Your task to perform on an android device: How much does a 2 bedroom apartment rent for in Seattle? Image 0: 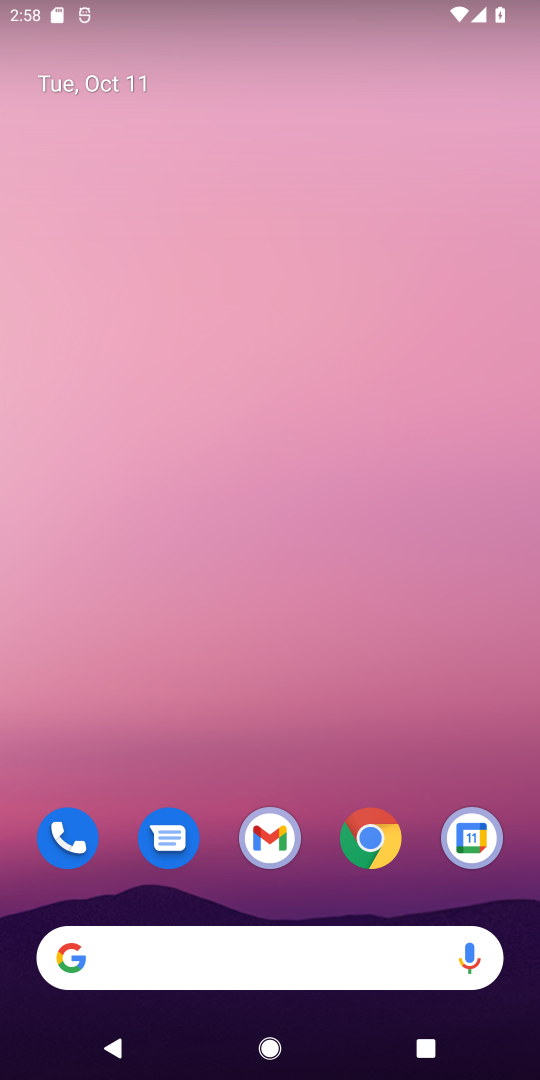
Step 0: click (370, 838)
Your task to perform on an android device: How much does a 2 bedroom apartment rent for in Seattle? Image 1: 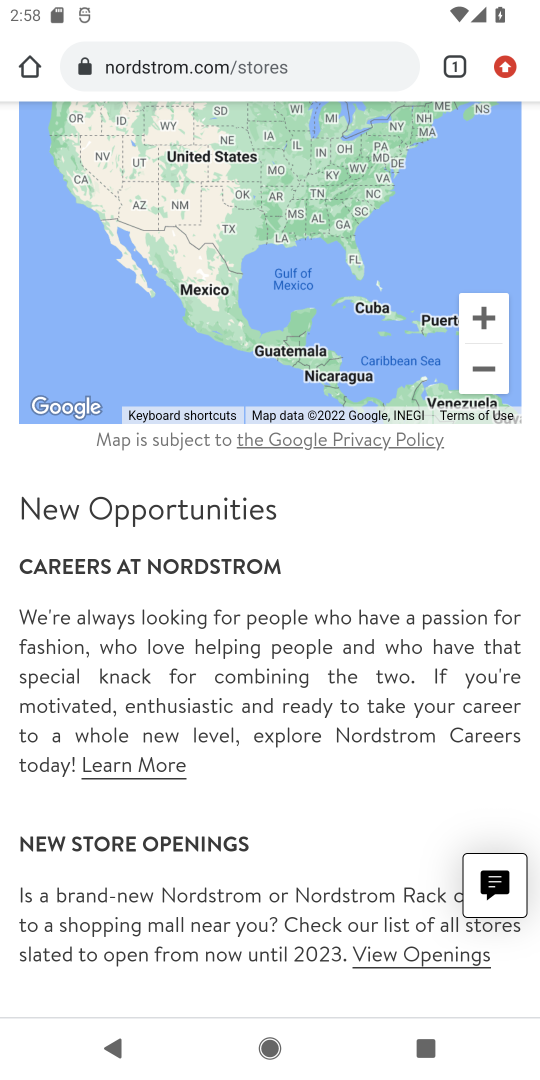
Step 1: click (203, 65)
Your task to perform on an android device: How much does a 2 bedroom apartment rent for in Seattle? Image 2: 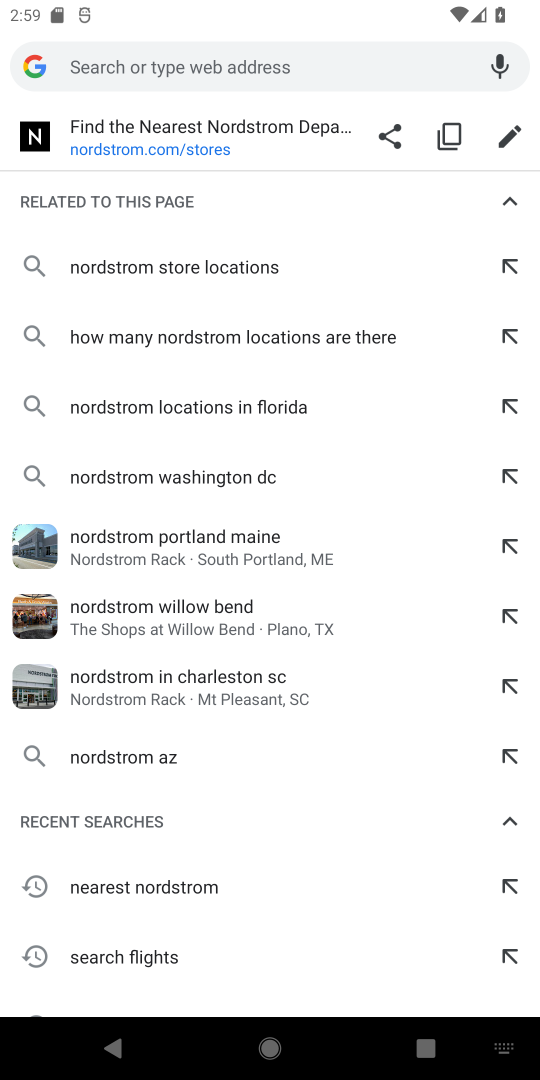
Step 2: type "2 bedroom apartment rent for in seattle"
Your task to perform on an android device: How much does a 2 bedroom apartment rent for in Seattle? Image 3: 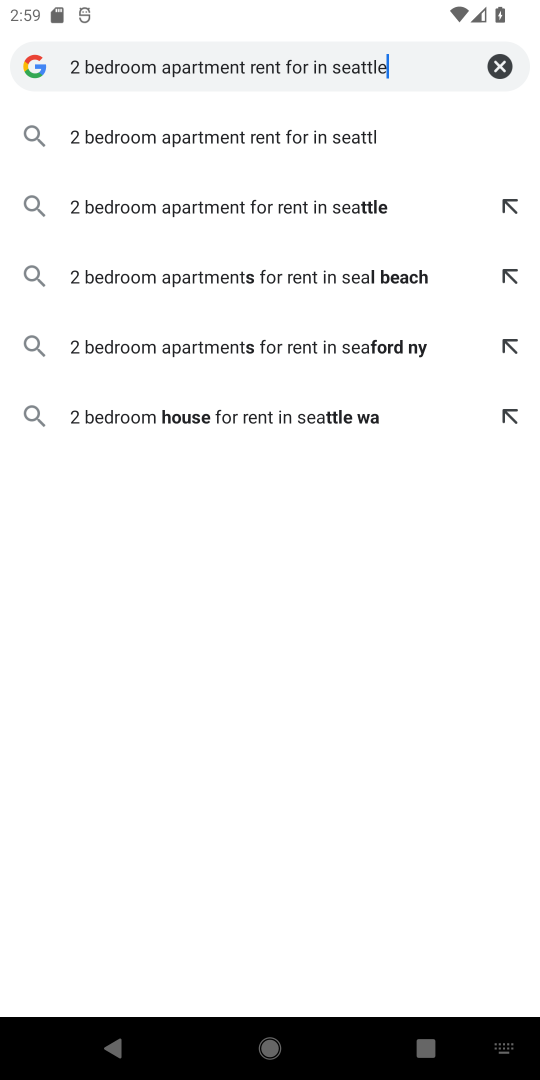
Step 3: type ""
Your task to perform on an android device: How much does a 2 bedroom apartment rent for in Seattle? Image 4: 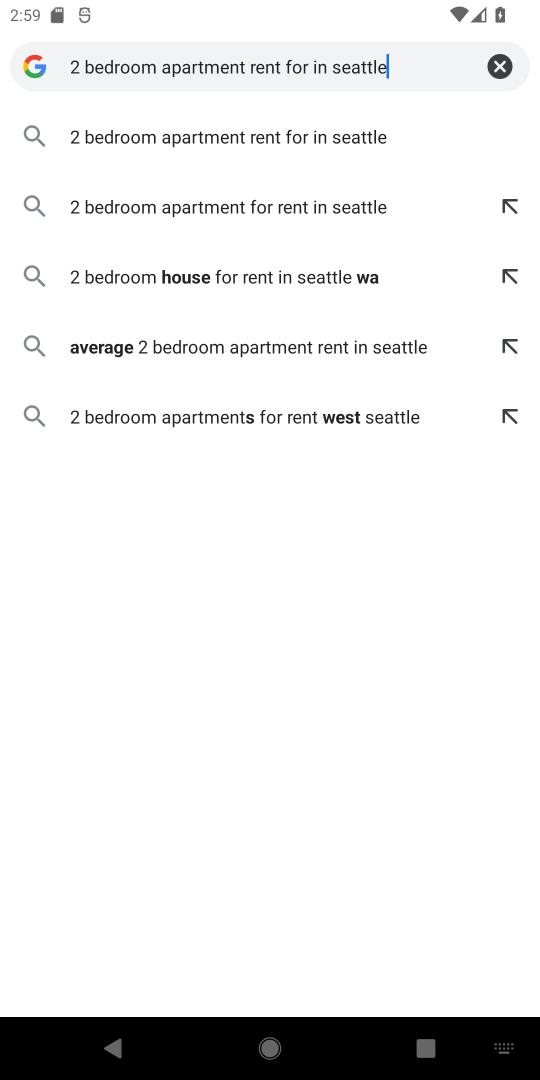
Step 4: click (277, 137)
Your task to perform on an android device: How much does a 2 bedroom apartment rent for in Seattle? Image 5: 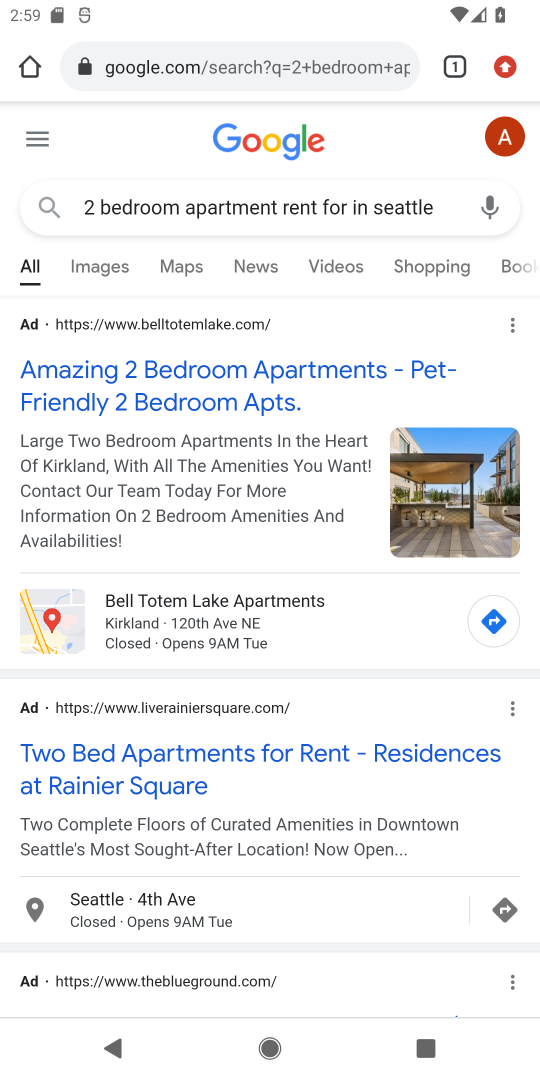
Step 5: drag from (277, 809) to (293, 335)
Your task to perform on an android device: How much does a 2 bedroom apartment rent for in Seattle? Image 6: 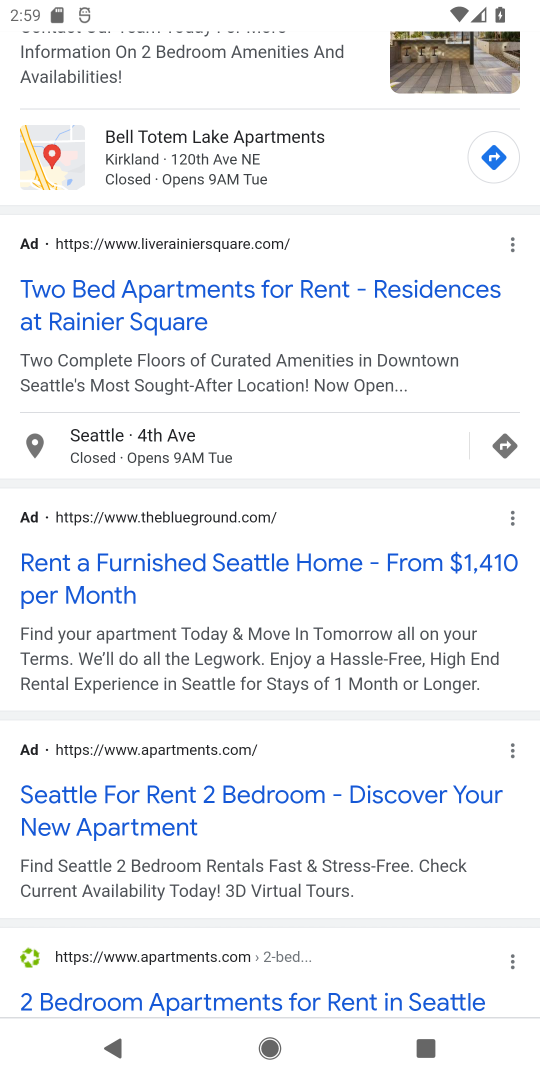
Step 6: drag from (330, 749) to (330, 408)
Your task to perform on an android device: How much does a 2 bedroom apartment rent for in Seattle? Image 7: 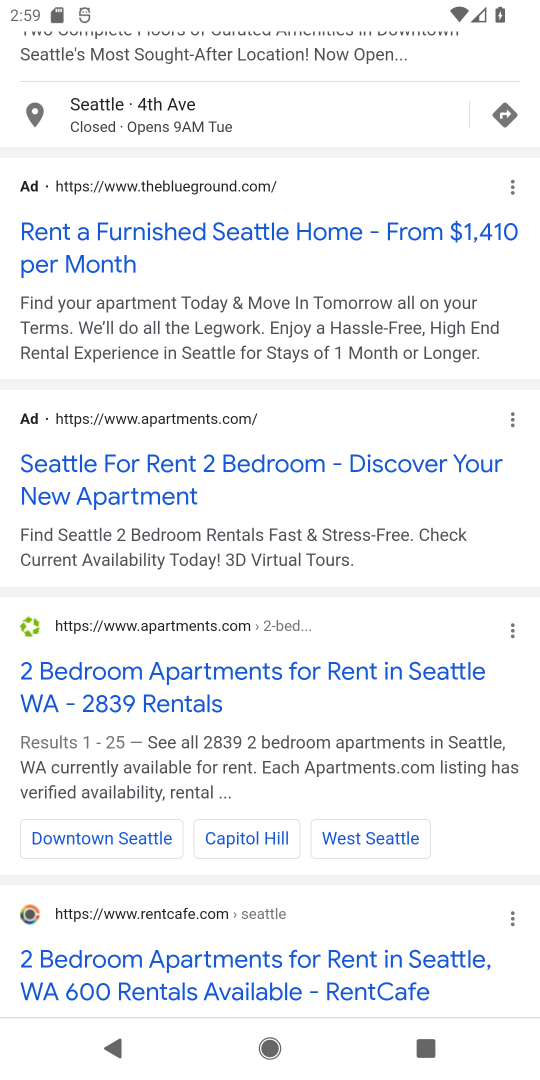
Step 7: click (217, 679)
Your task to perform on an android device: How much does a 2 bedroom apartment rent for in Seattle? Image 8: 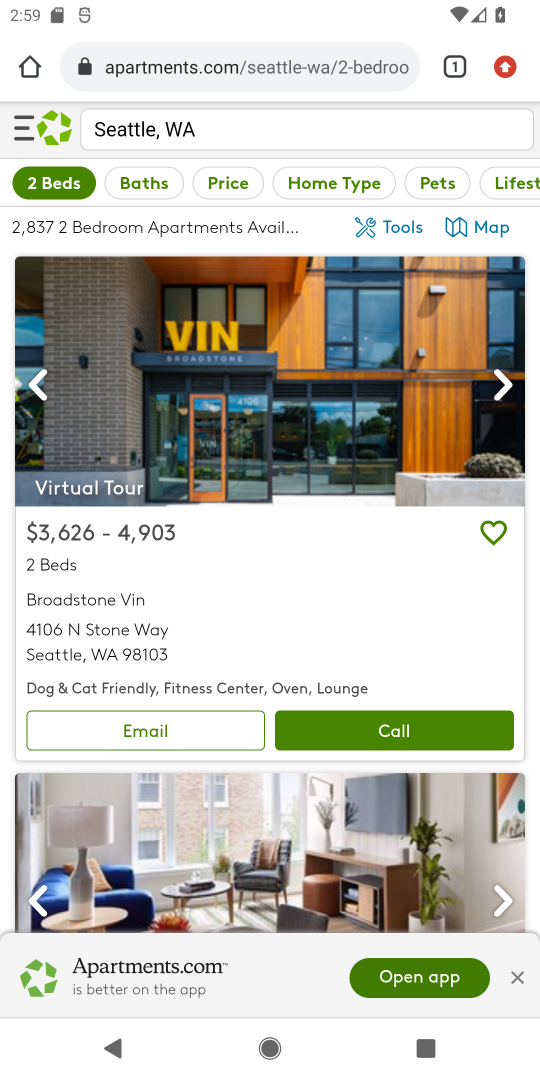
Step 8: task complete